Your task to perform on an android device: turn pop-ups on in chrome Image 0: 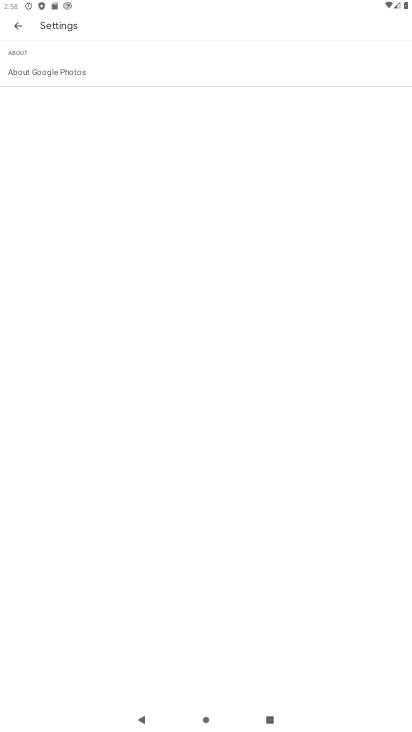
Step 0: press home button
Your task to perform on an android device: turn pop-ups on in chrome Image 1: 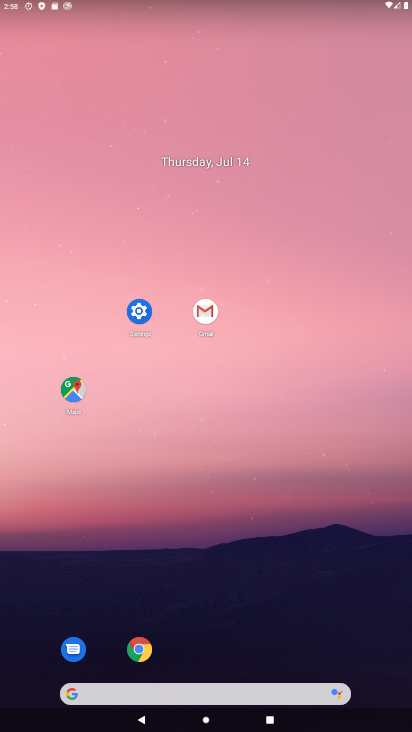
Step 1: click (142, 647)
Your task to perform on an android device: turn pop-ups on in chrome Image 2: 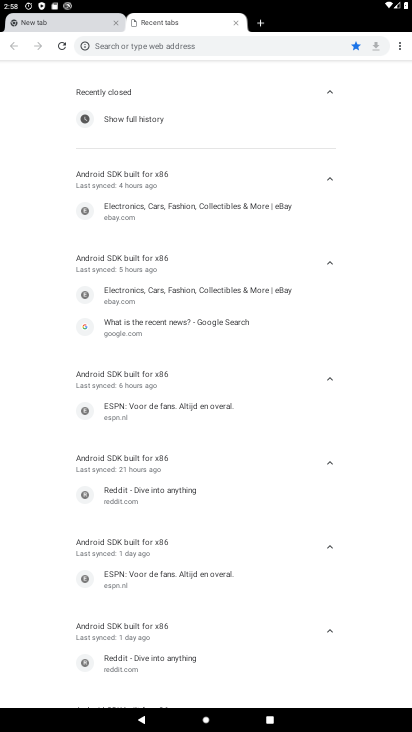
Step 2: click (401, 44)
Your task to perform on an android device: turn pop-ups on in chrome Image 3: 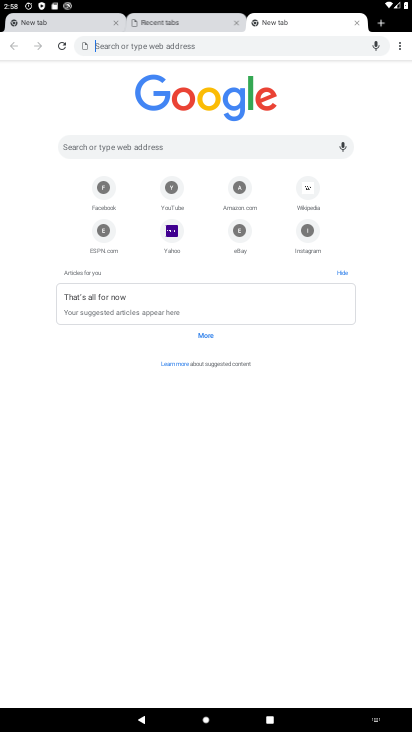
Step 3: click (395, 46)
Your task to perform on an android device: turn pop-ups on in chrome Image 4: 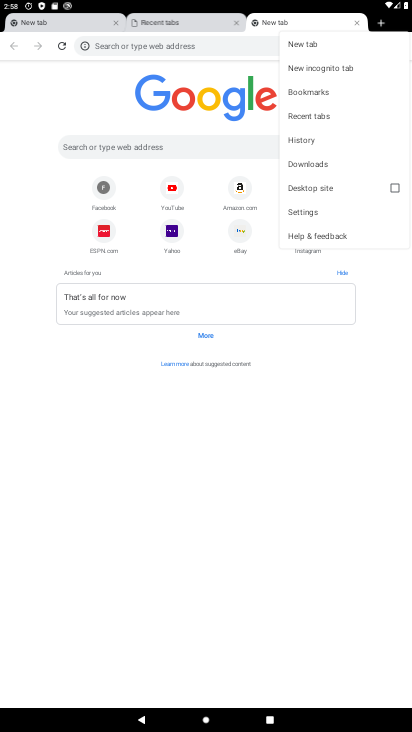
Step 4: click (321, 203)
Your task to perform on an android device: turn pop-ups on in chrome Image 5: 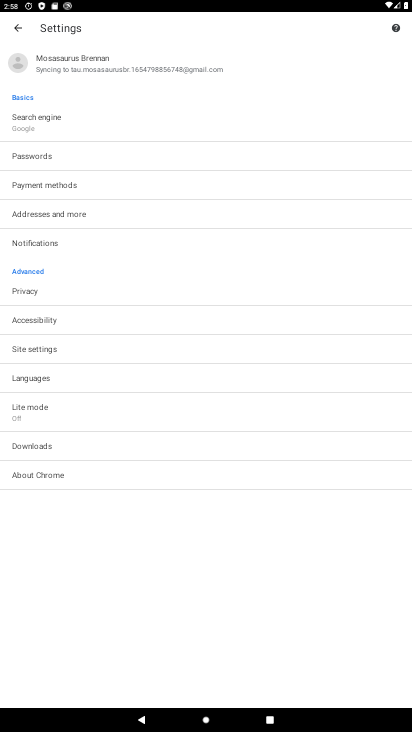
Step 5: click (89, 356)
Your task to perform on an android device: turn pop-ups on in chrome Image 6: 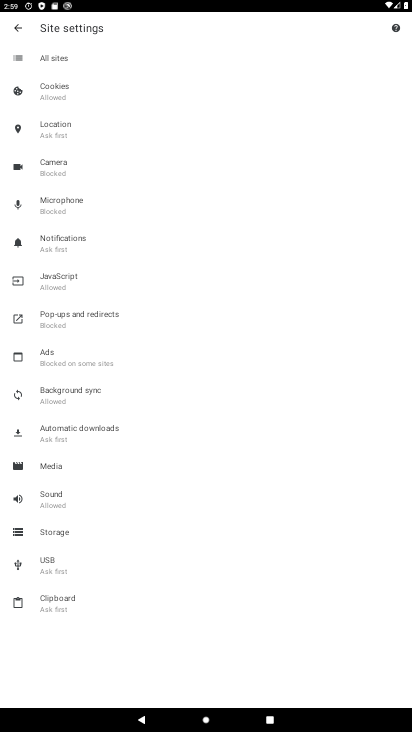
Step 6: click (121, 330)
Your task to perform on an android device: turn pop-ups on in chrome Image 7: 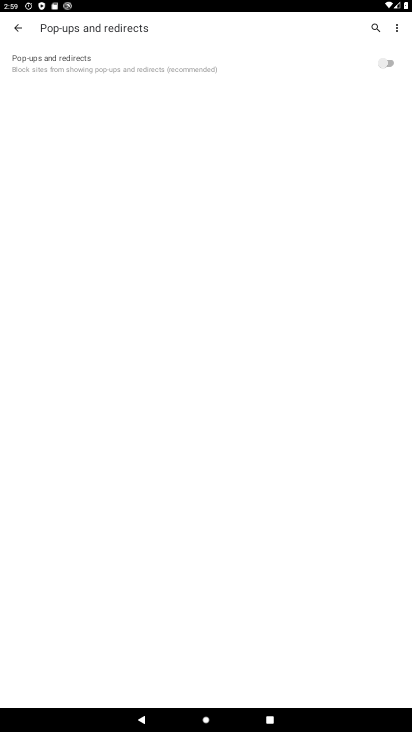
Step 7: click (385, 60)
Your task to perform on an android device: turn pop-ups on in chrome Image 8: 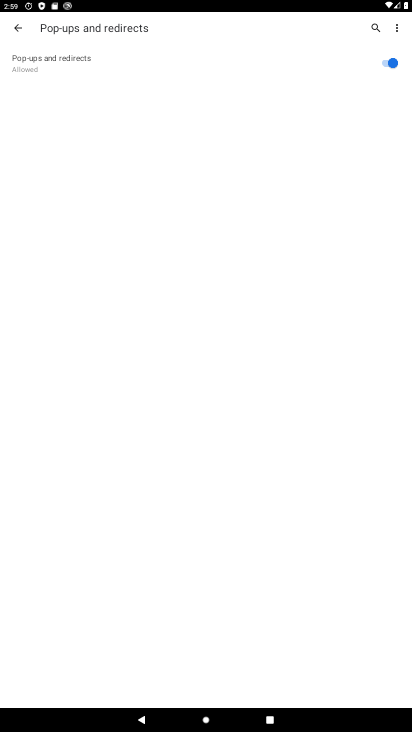
Step 8: task complete